Your task to perform on an android device: Search for pizza restaurants on Maps Image 0: 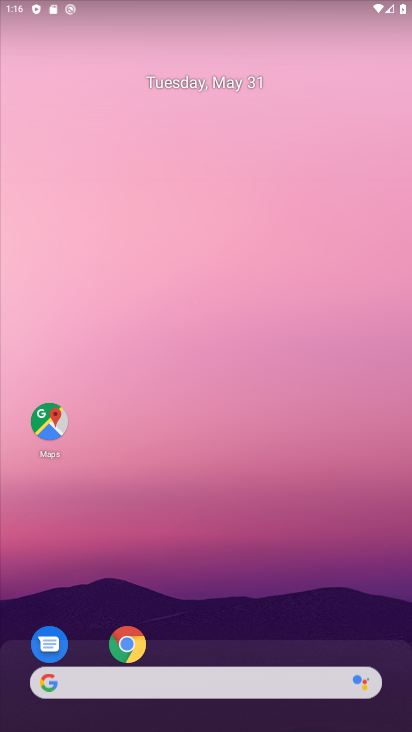
Step 0: click (49, 409)
Your task to perform on an android device: Search for pizza restaurants on Maps Image 1: 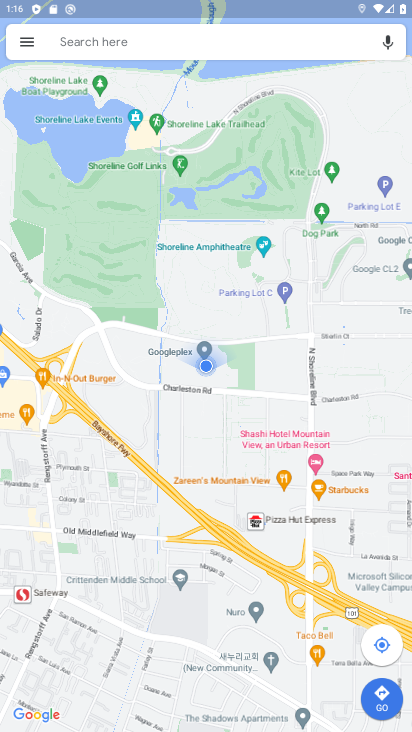
Step 1: click (144, 46)
Your task to perform on an android device: Search for pizza restaurants on Maps Image 2: 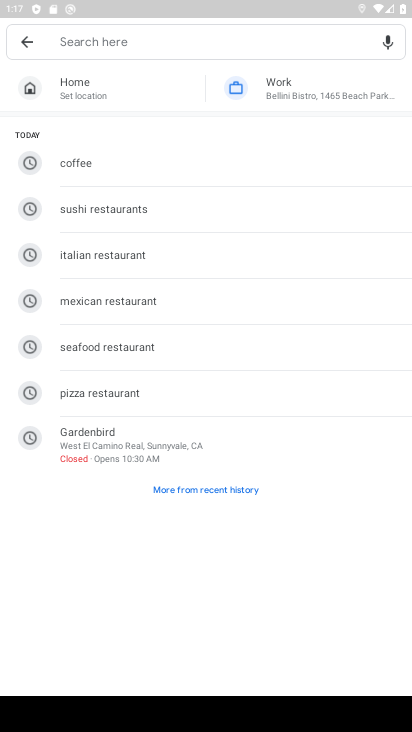
Step 2: type " pizza restaurants"
Your task to perform on an android device: Search for pizza restaurants on Maps Image 3: 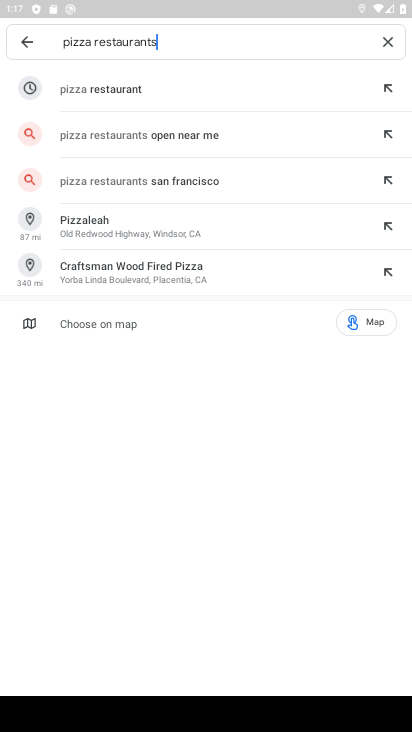
Step 3: click (76, 83)
Your task to perform on an android device: Search for pizza restaurants on Maps Image 4: 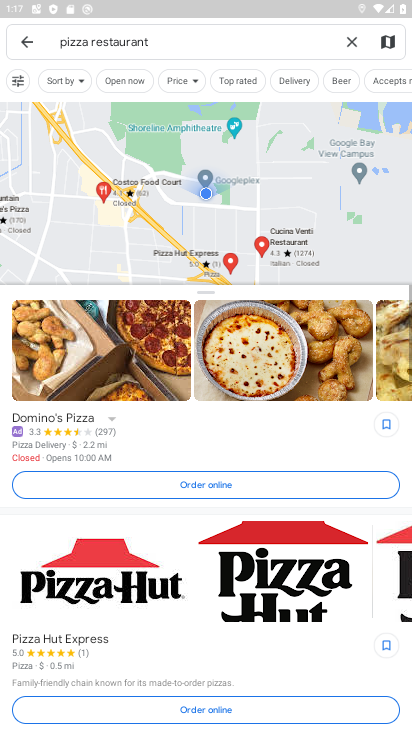
Step 4: task complete